Your task to perform on an android device: Search for sushi restaurants on Maps Image 0: 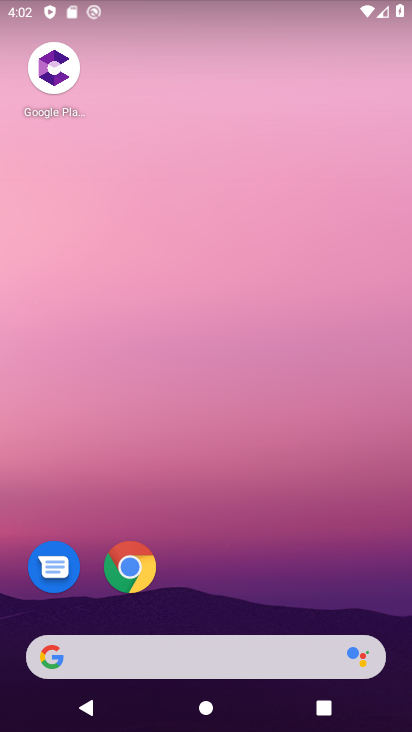
Step 0: drag from (263, 721) to (184, 176)
Your task to perform on an android device: Search for sushi restaurants on Maps Image 1: 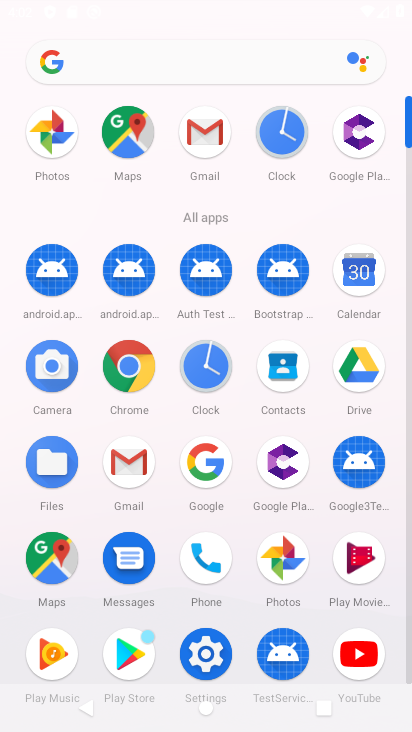
Step 1: click (51, 561)
Your task to perform on an android device: Search for sushi restaurants on Maps Image 2: 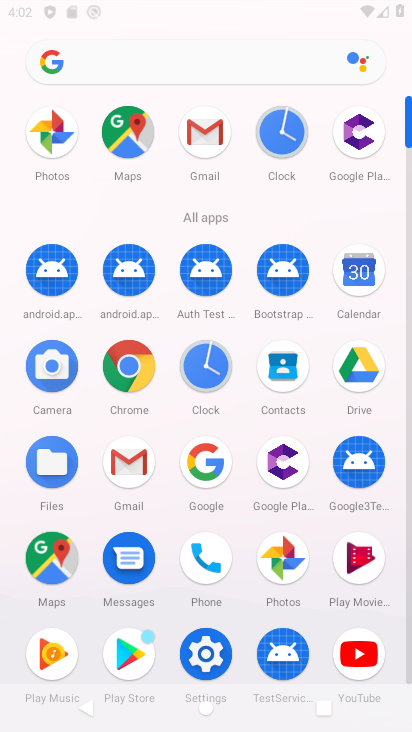
Step 2: click (51, 561)
Your task to perform on an android device: Search for sushi restaurants on Maps Image 3: 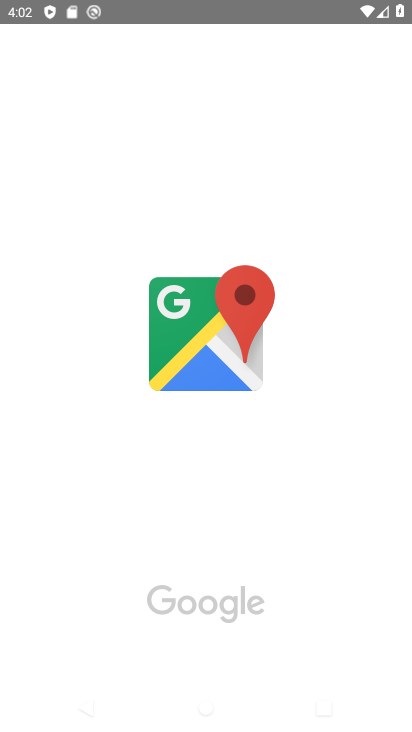
Step 3: click (46, 562)
Your task to perform on an android device: Search for sushi restaurants on Maps Image 4: 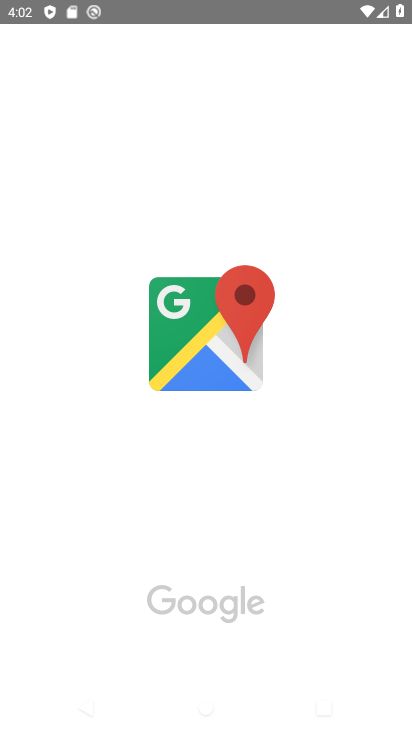
Step 4: click (45, 564)
Your task to perform on an android device: Search for sushi restaurants on Maps Image 5: 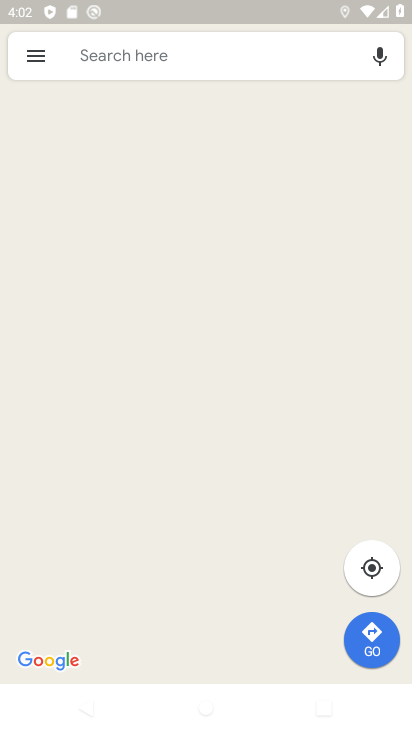
Step 5: click (86, 61)
Your task to perform on an android device: Search for sushi restaurants on Maps Image 6: 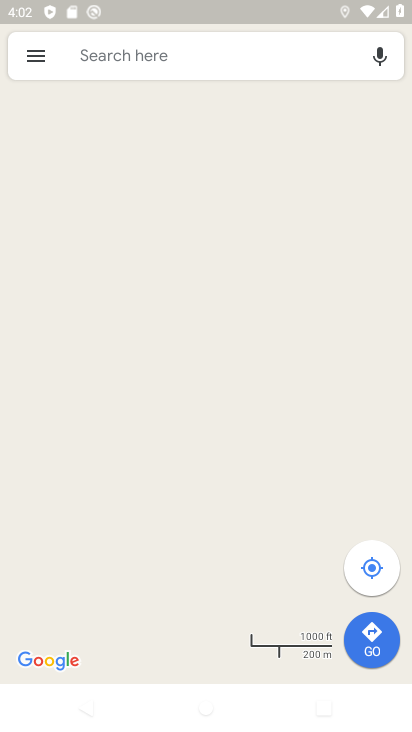
Step 6: click (93, 56)
Your task to perform on an android device: Search for sushi restaurants on Maps Image 7: 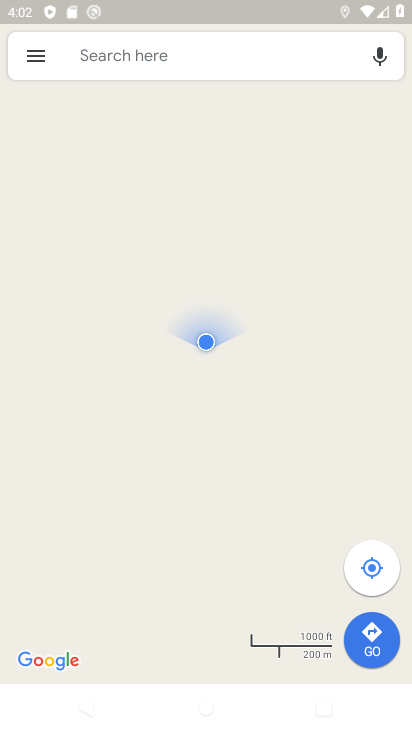
Step 7: click (94, 55)
Your task to perform on an android device: Search for sushi restaurants on Maps Image 8: 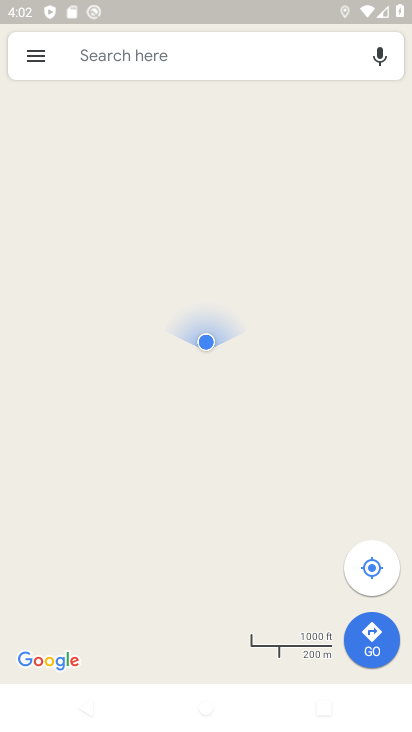
Step 8: click (94, 55)
Your task to perform on an android device: Search for sushi restaurants on Maps Image 9: 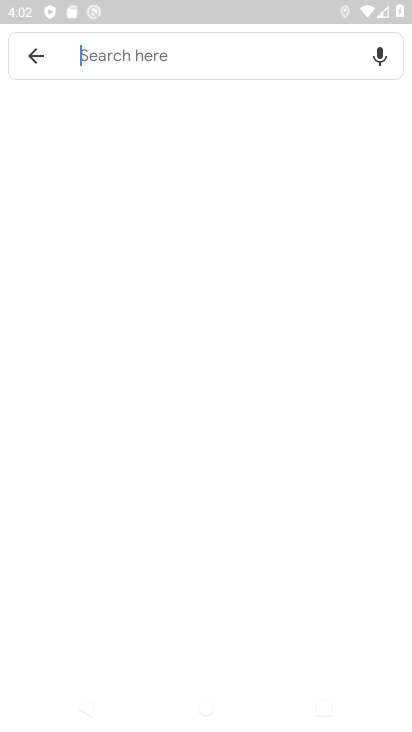
Step 9: click (95, 55)
Your task to perform on an android device: Search for sushi restaurants on Maps Image 10: 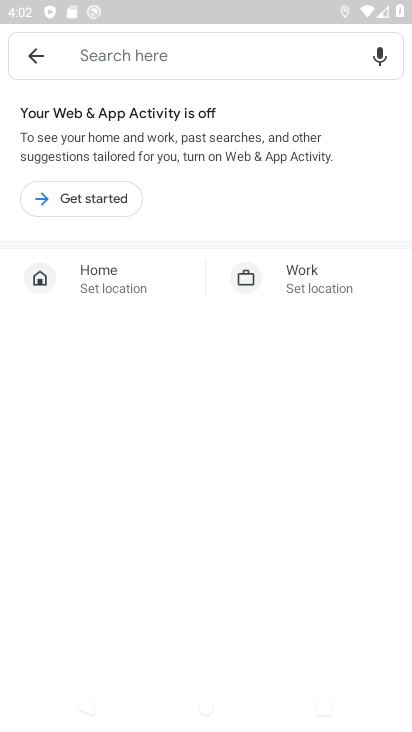
Step 10: click (95, 55)
Your task to perform on an android device: Search for sushi restaurants on Maps Image 11: 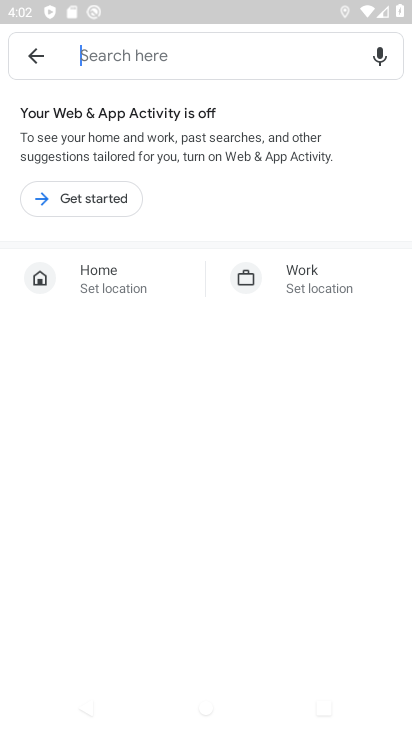
Step 11: click (95, 55)
Your task to perform on an android device: Search for sushi restaurants on Maps Image 12: 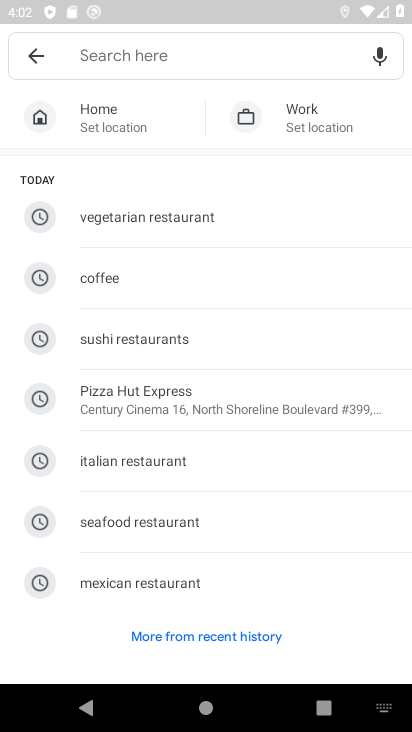
Step 12: type "SUSHI"
Your task to perform on an android device: Search for sushi restaurants on Maps Image 13: 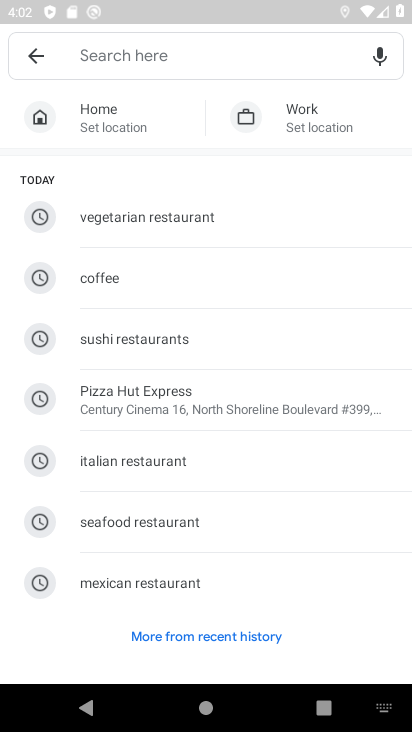
Step 13: click (128, 333)
Your task to perform on an android device: Search for sushi restaurants on Maps Image 14: 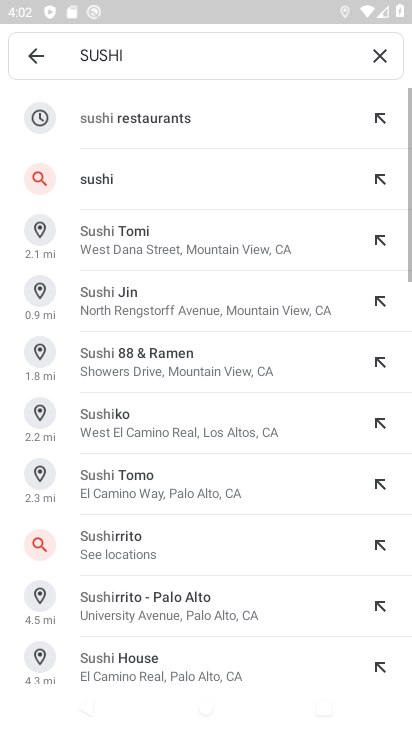
Step 14: click (125, 335)
Your task to perform on an android device: Search for sushi restaurants on Maps Image 15: 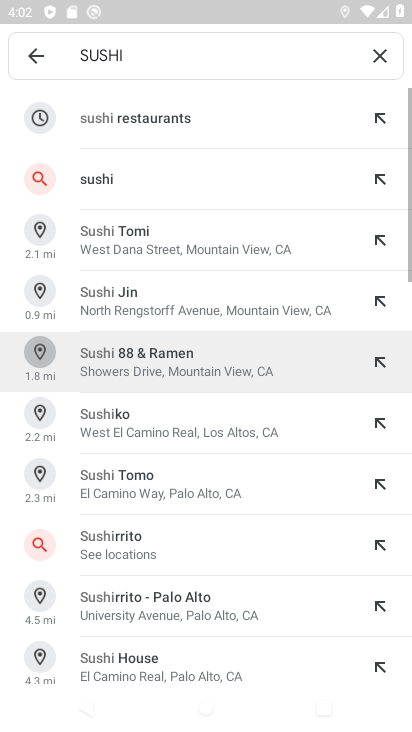
Step 15: click (164, 124)
Your task to perform on an android device: Search for sushi restaurants on Maps Image 16: 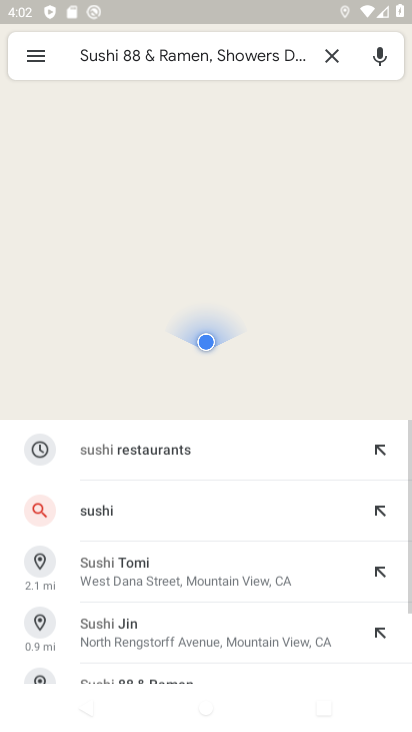
Step 16: click (166, 123)
Your task to perform on an android device: Search for sushi restaurants on Maps Image 17: 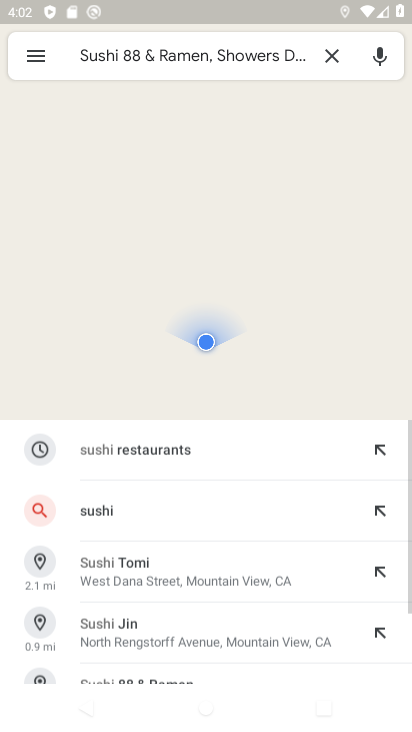
Step 17: click (166, 123)
Your task to perform on an android device: Search for sushi restaurants on Maps Image 18: 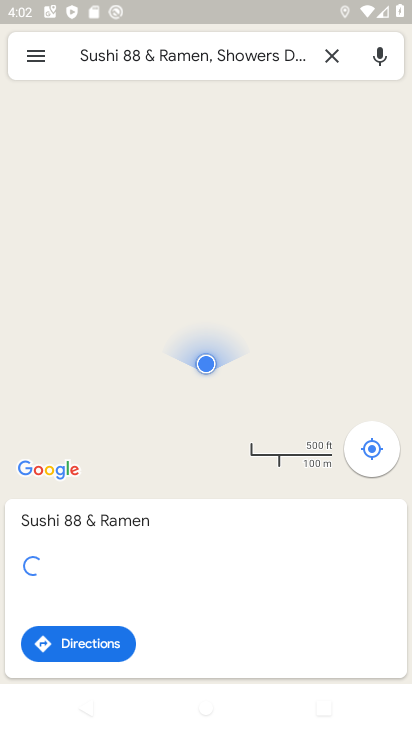
Step 18: task complete